Your task to perform on an android device: Search for seafood restaurants on Google Maps Image 0: 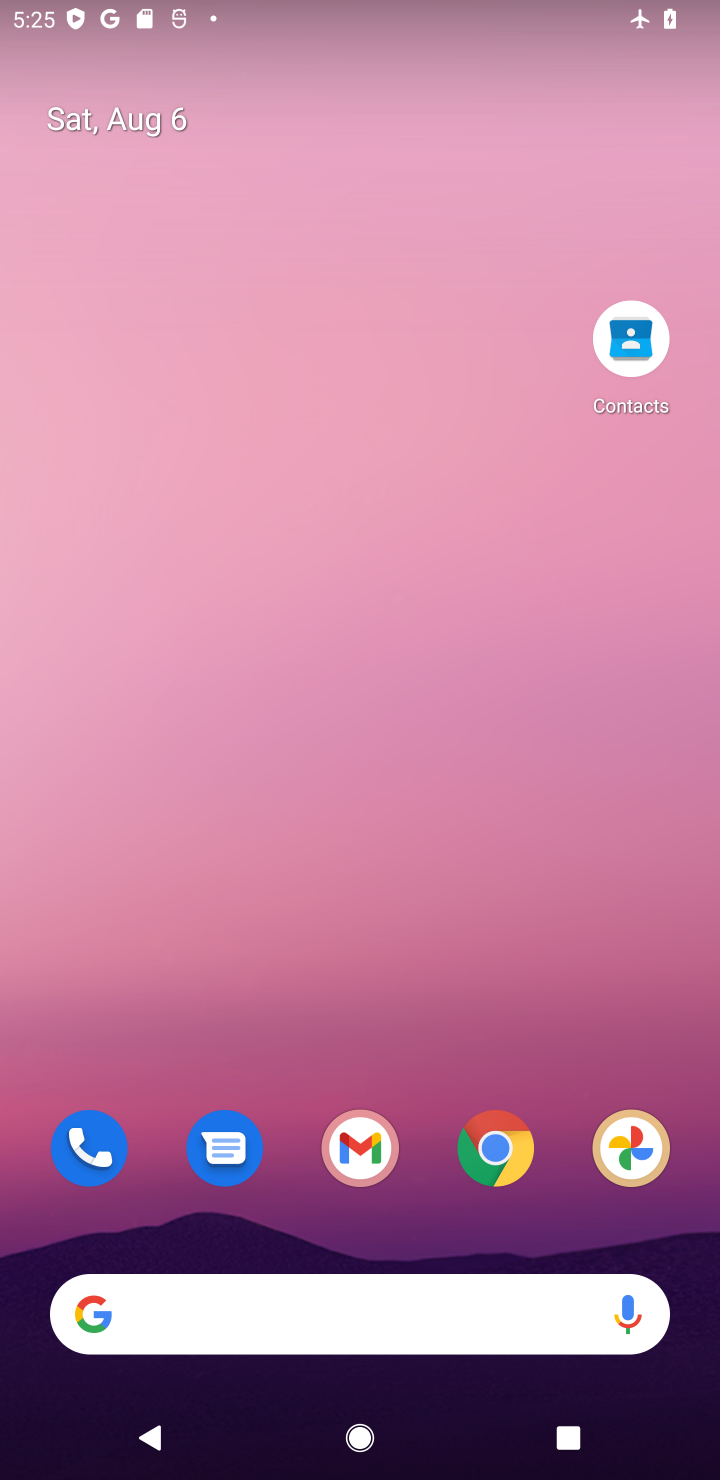
Step 0: drag from (326, 1246) to (125, 31)
Your task to perform on an android device: Search for seafood restaurants on Google Maps Image 1: 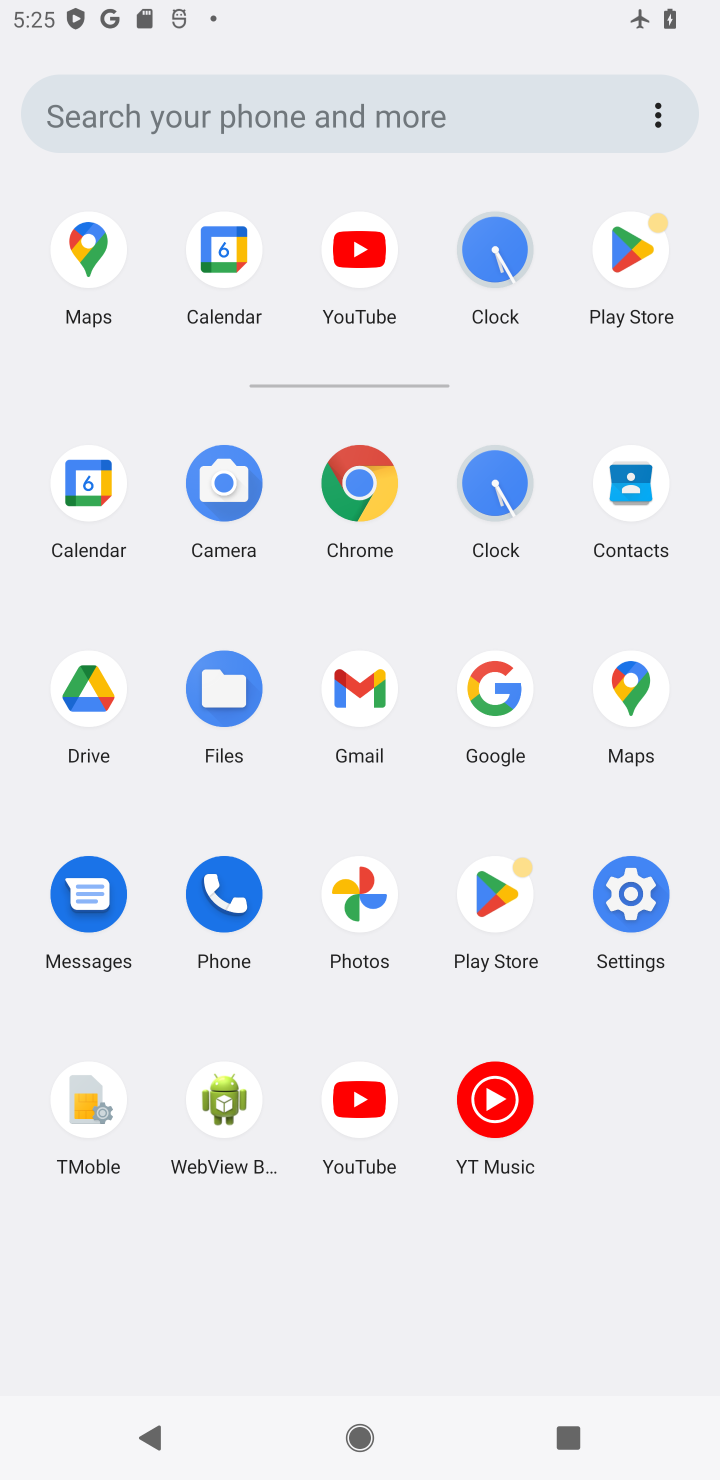
Step 1: click (635, 682)
Your task to perform on an android device: Search for seafood restaurants on Google Maps Image 2: 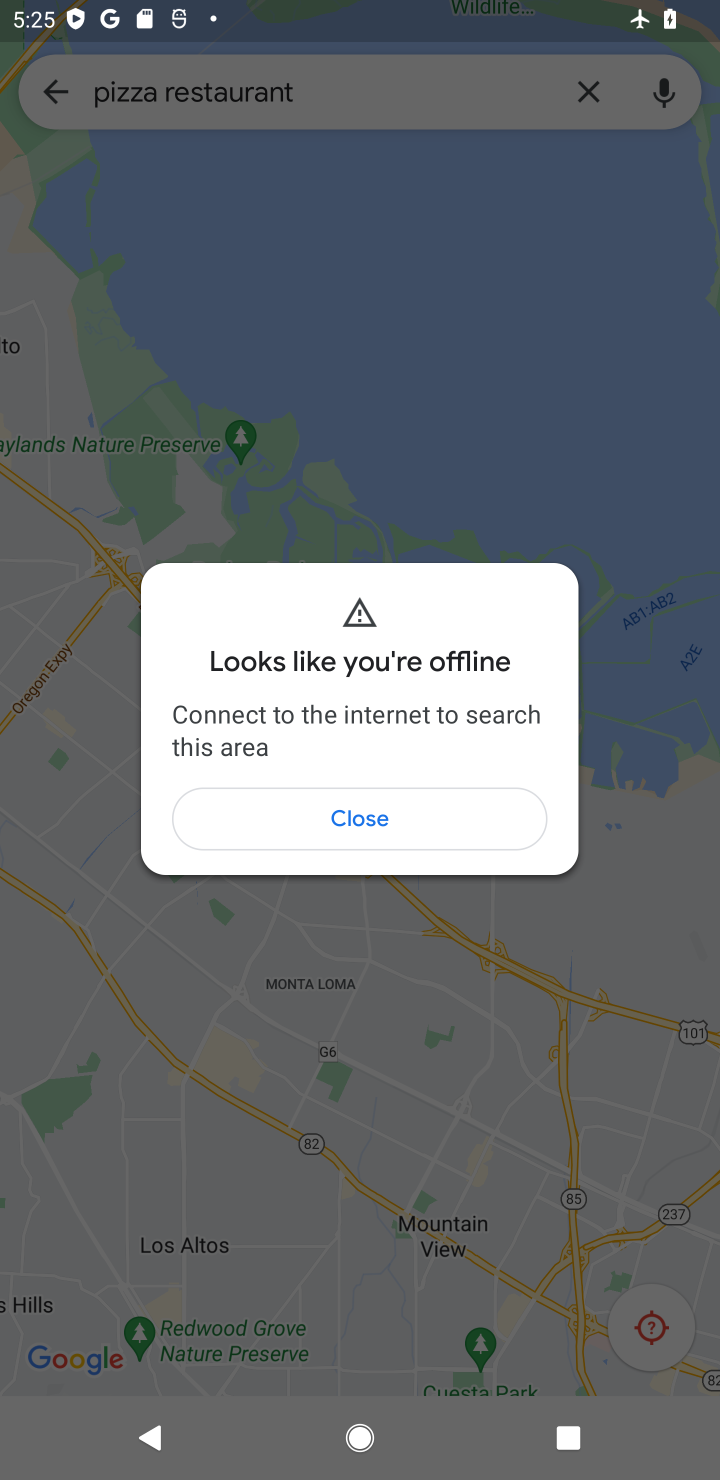
Step 2: click (261, 810)
Your task to perform on an android device: Search for seafood restaurants on Google Maps Image 3: 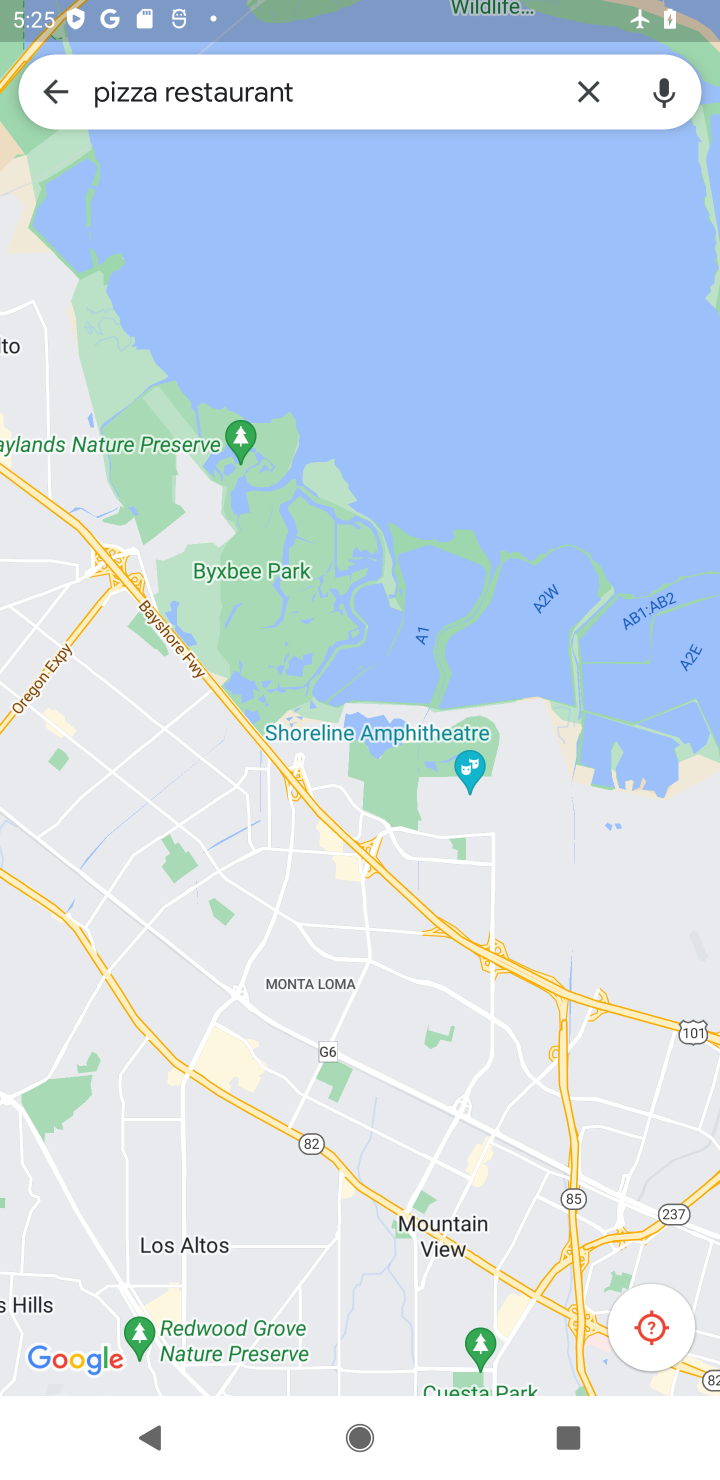
Step 3: click (578, 80)
Your task to perform on an android device: Search for seafood restaurants on Google Maps Image 4: 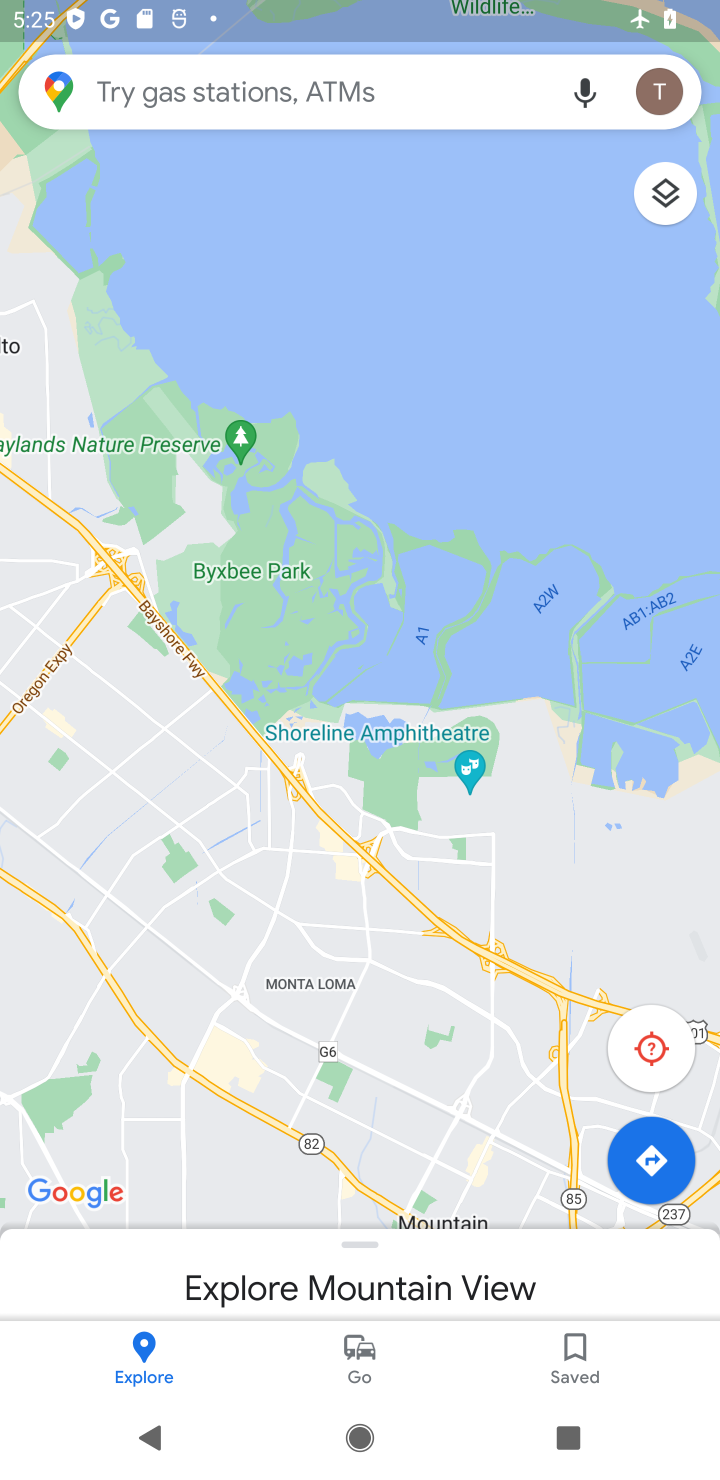
Step 4: click (273, 91)
Your task to perform on an android device: Search for seafood restaurants on Google Maps Image 5: 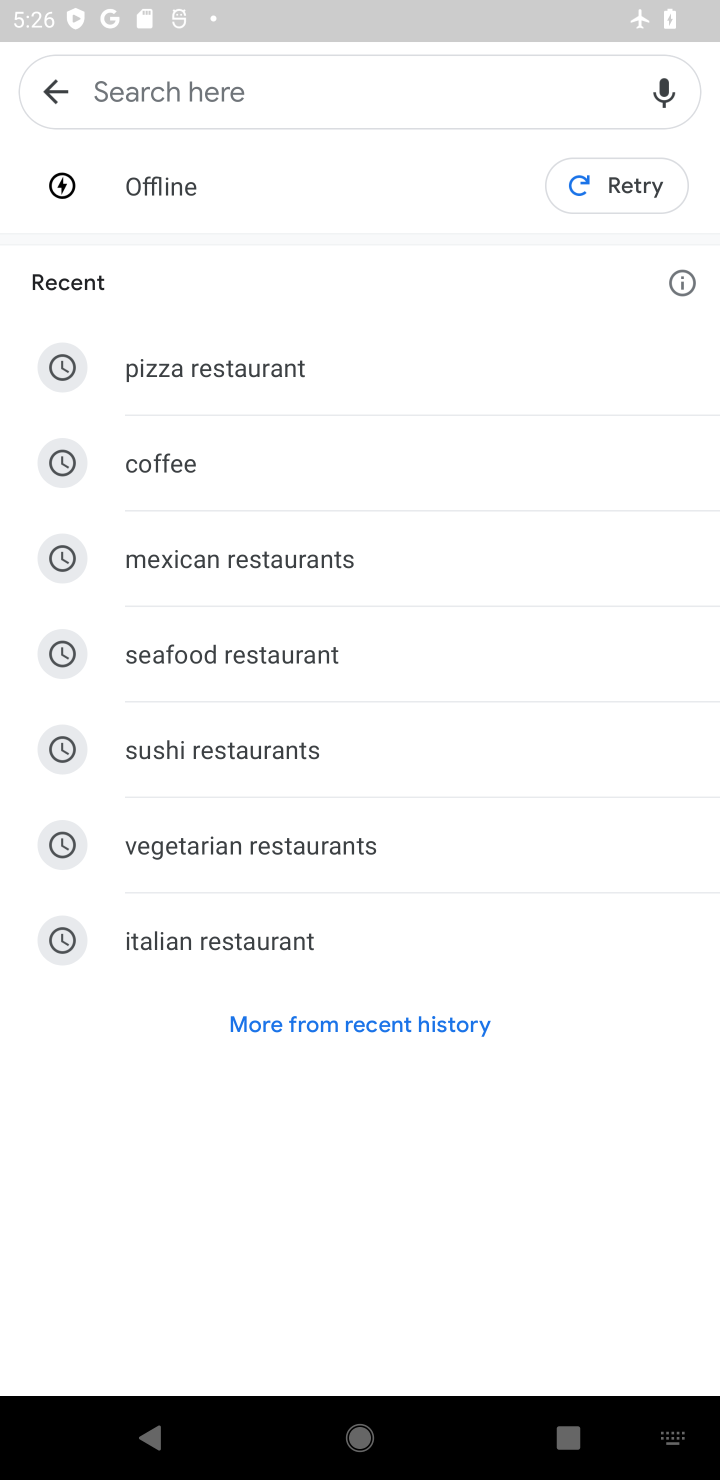
Step 5: click (208, 660)
Your task to perform on an android device: Search for seafood restaurants on Google Maps Image 6: 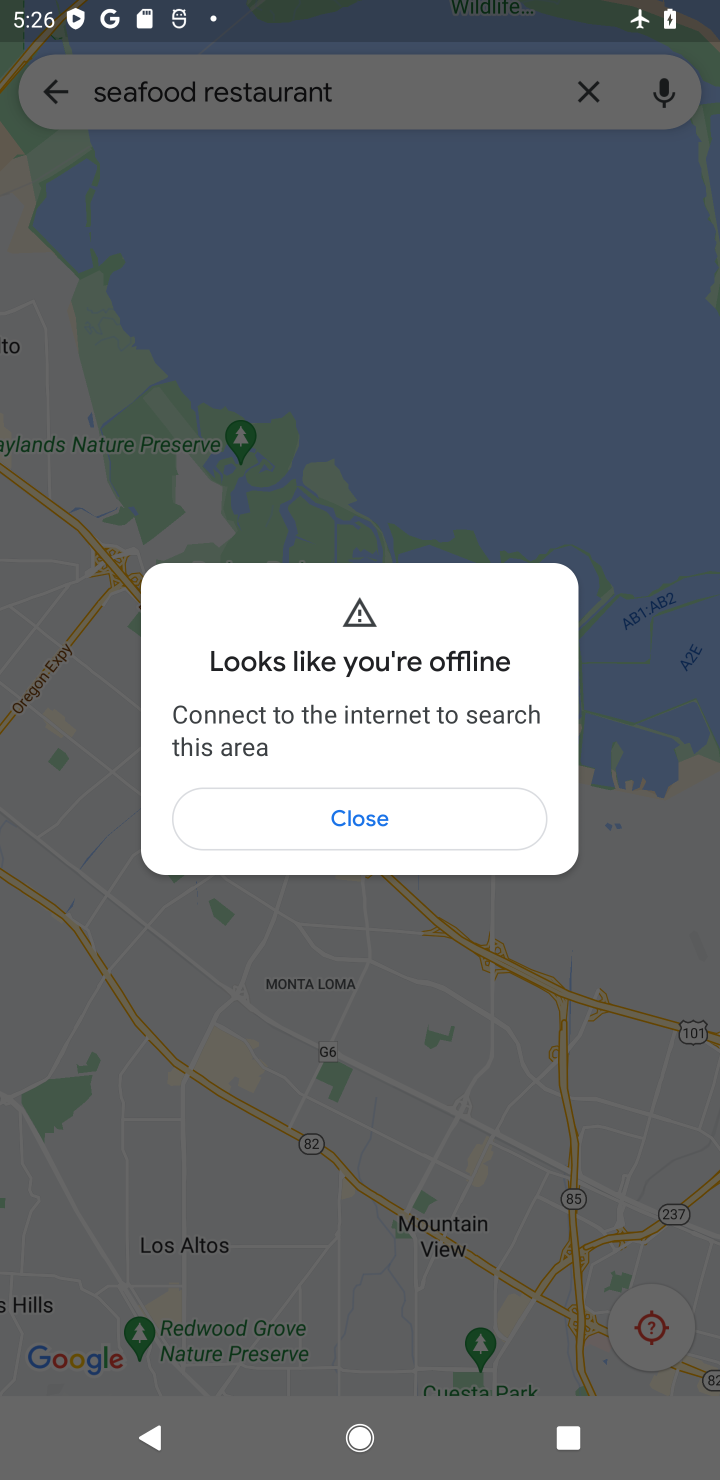
Step 6: task complete